Your task to perform on an android device: toggle improve location accuracy Image 0: 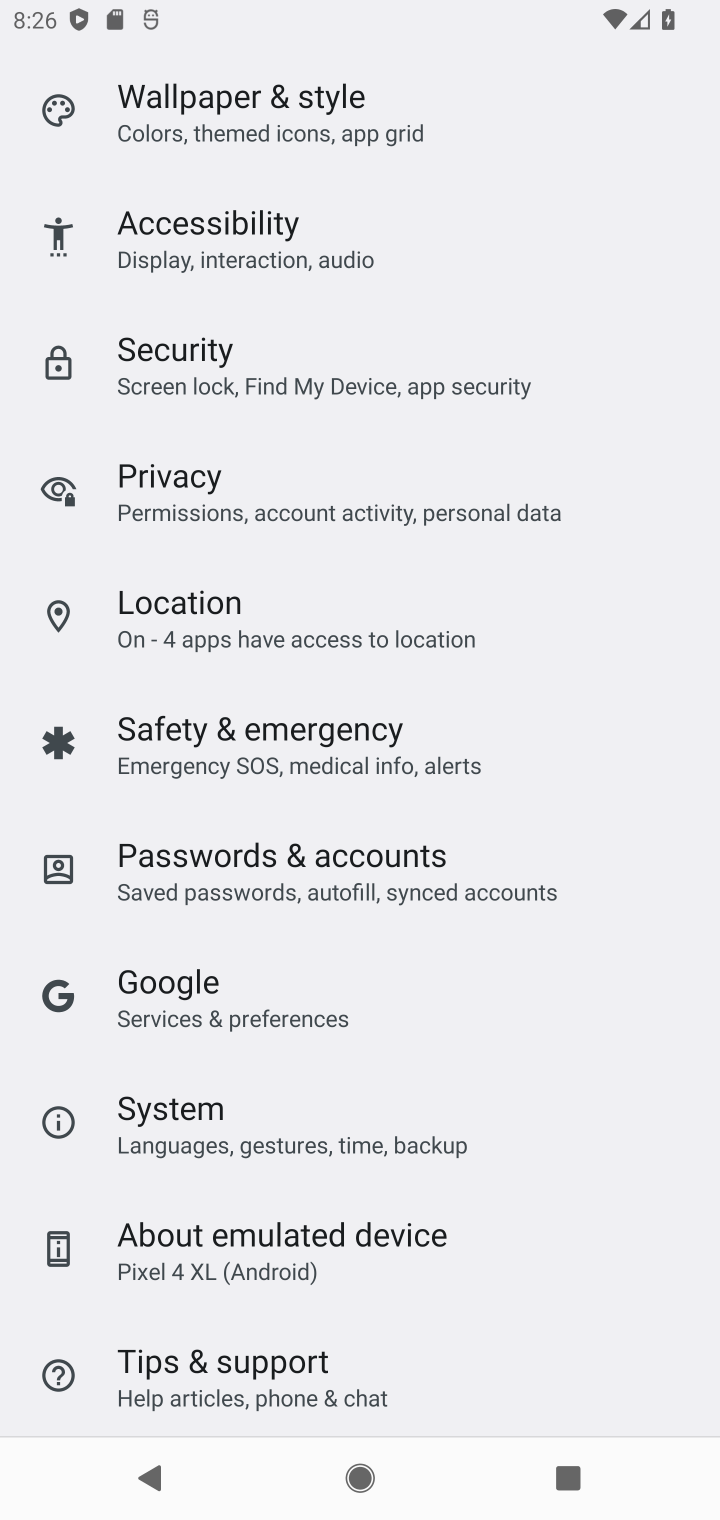
Step 0: drag from (431, 440) to (609, 1331)
Your task to perform on an android device: toggle improve location accuracy Image 1: 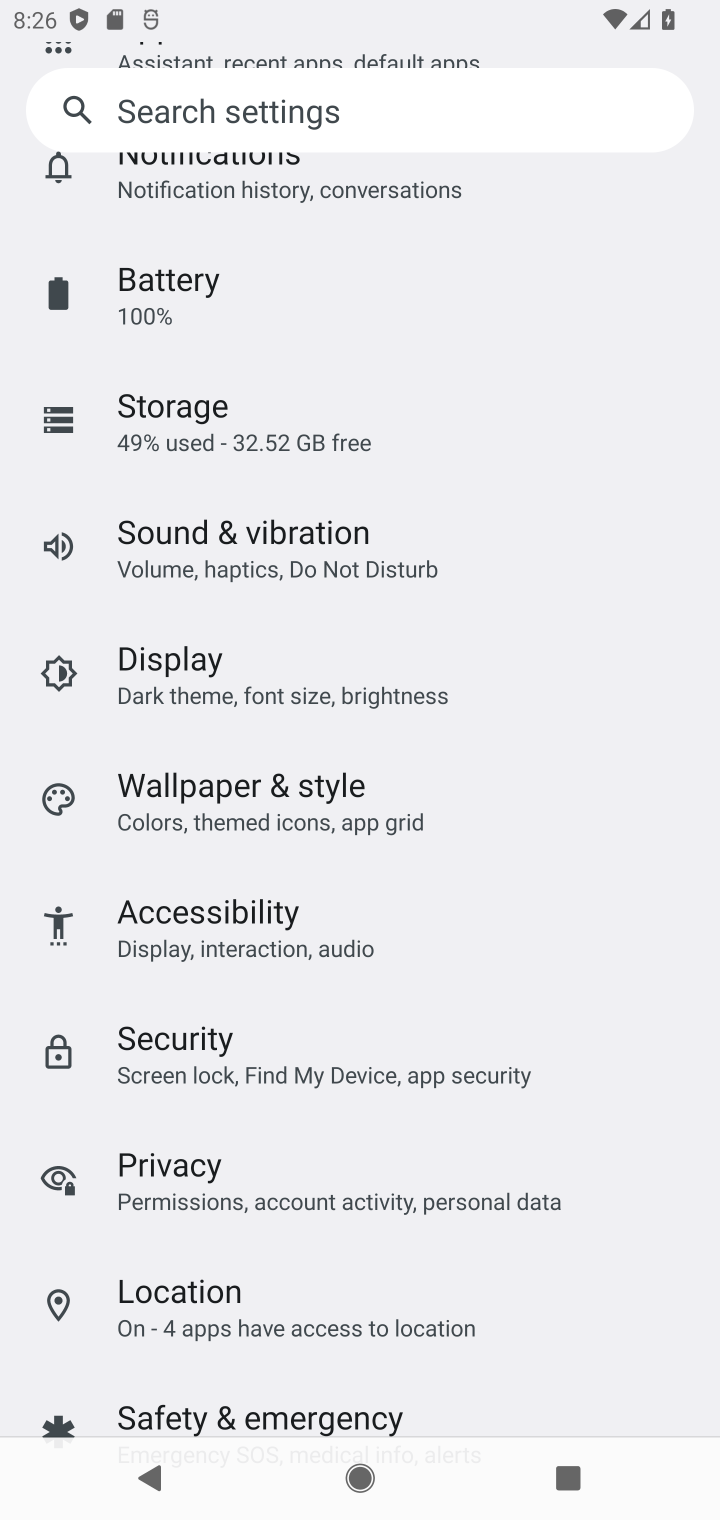
Step 1: click (281, 1284)
Your task to perform on an android device: toggle improve location accuracy Image 2: 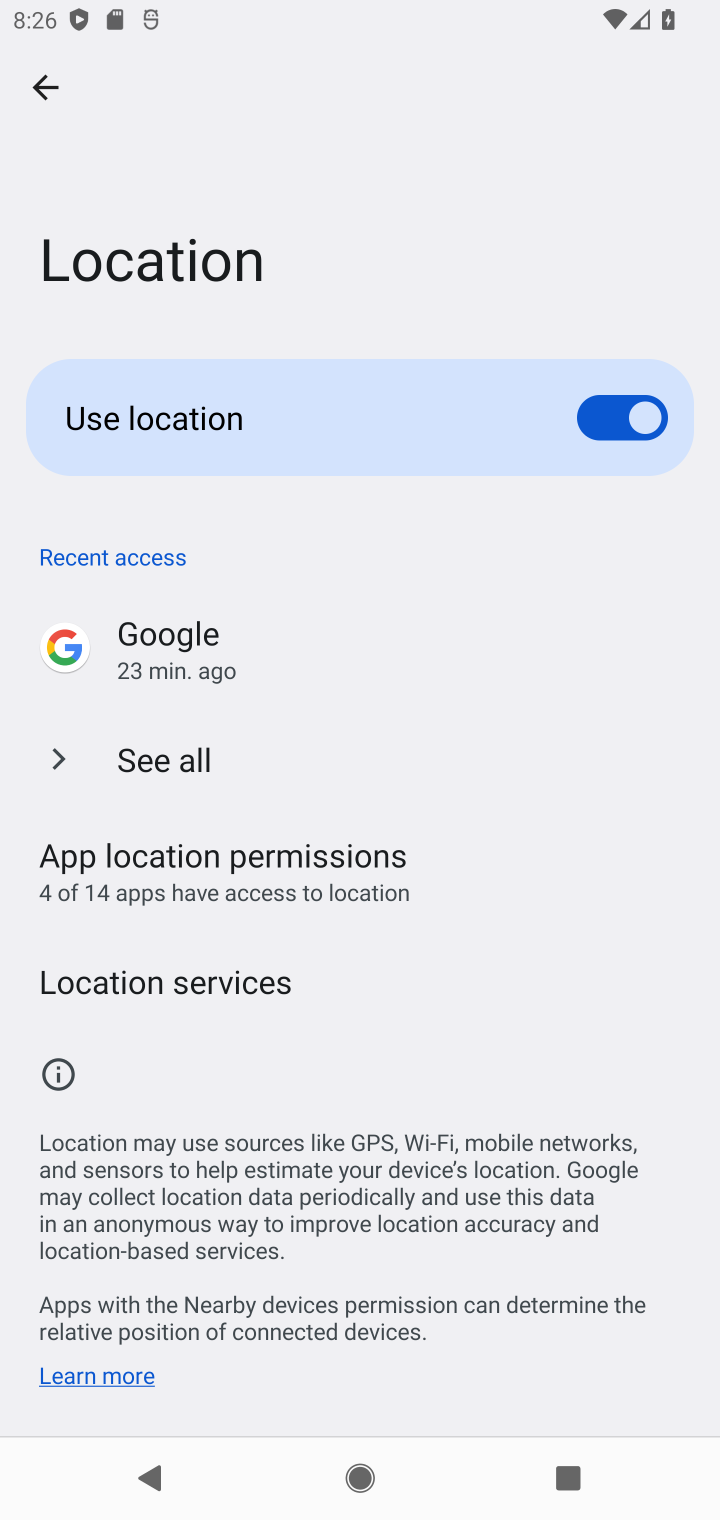
Step 2: drag from (304, 914) to (353, 666)
Your task to perform on an android device: toggle improve location accuracy Image 3: 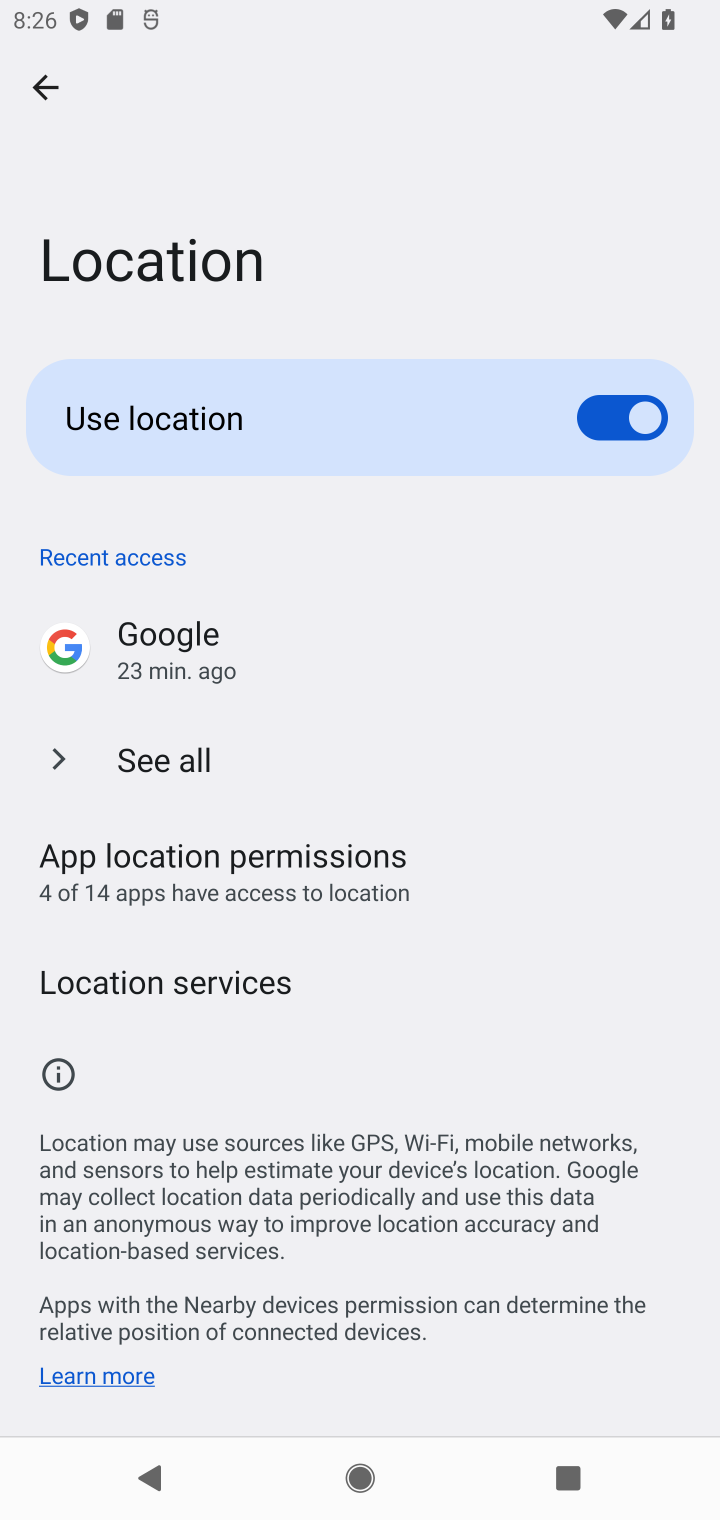
Step 3: click (200, 1000)
Your task to perform on an android device: toggle improve location accuracy Image 4: 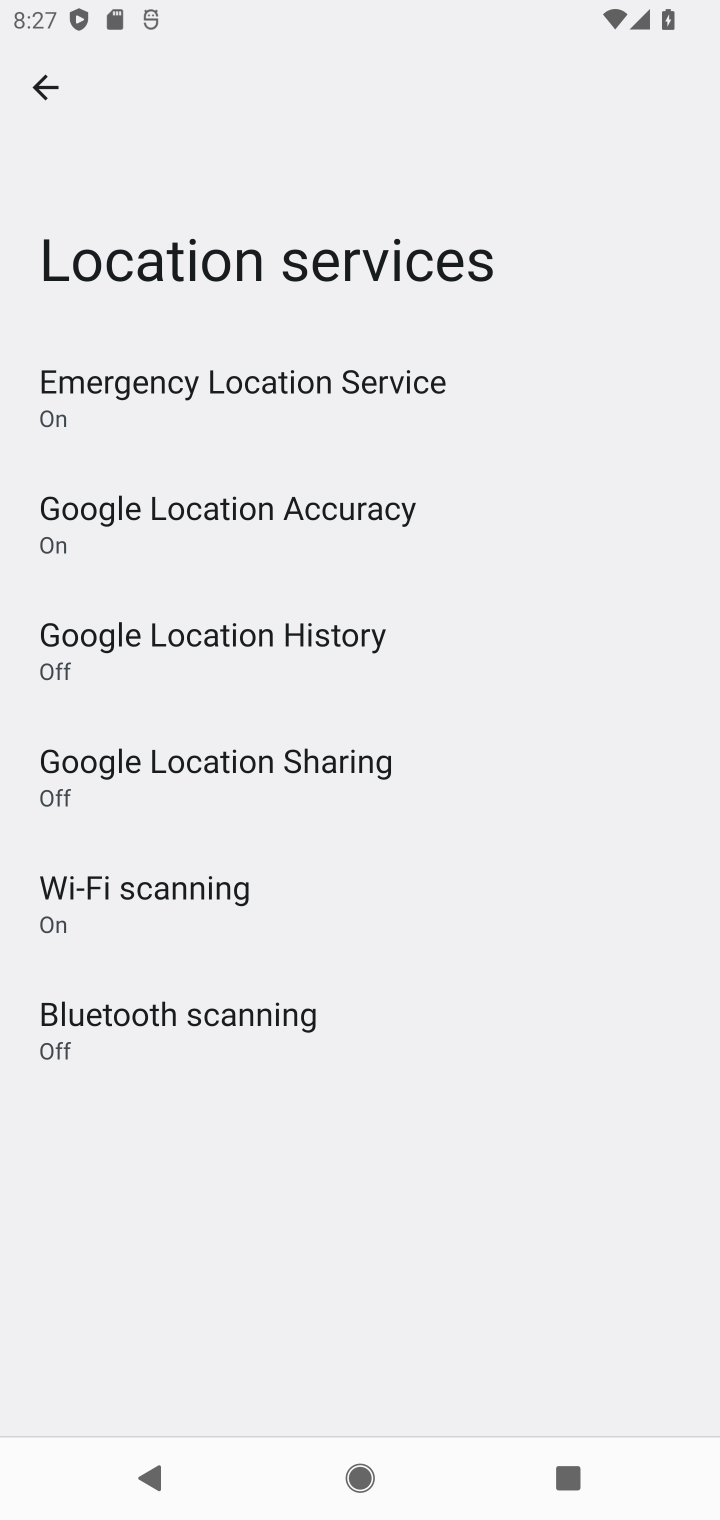
Step 4: click (332, 525)
Your task to perform on an android device: toggle improve location accuracy Image 5: 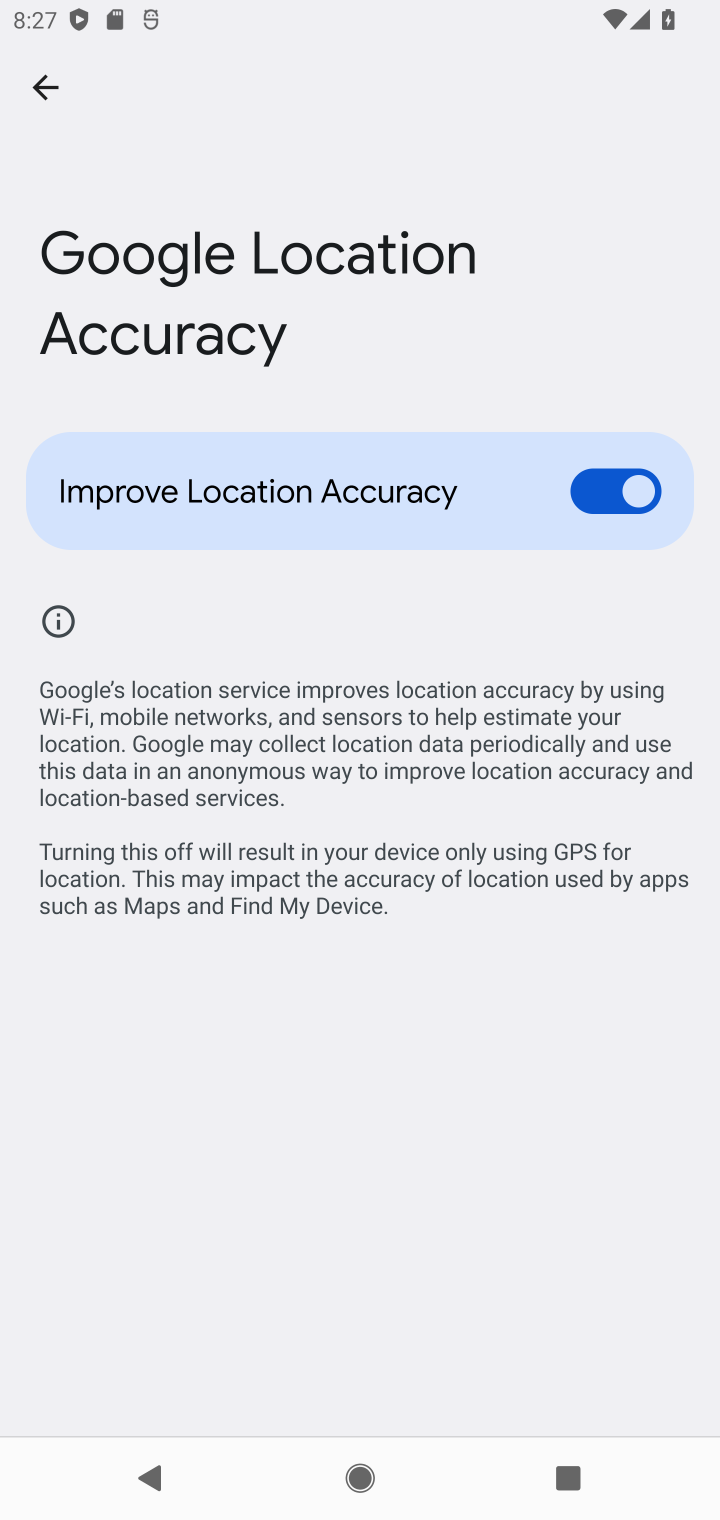
Step 5: drag from (373, 1117) to (384, 606)
Your task to perform on an android device: toggle improve location accuracy Image 6: 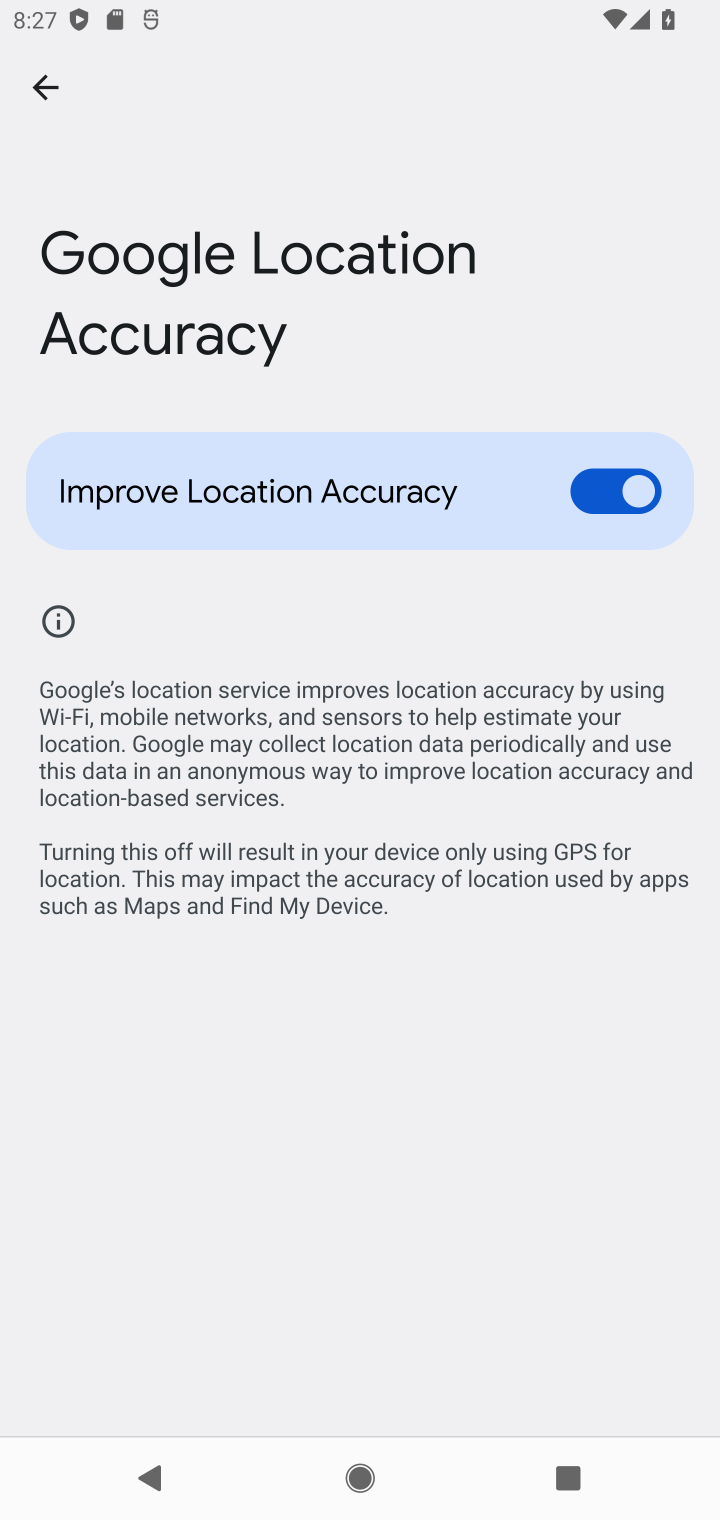
Step 6: drag from (388, 788) to (435, 445)
Your task to perform on an android device: toggle improve location accuracy Image 7: 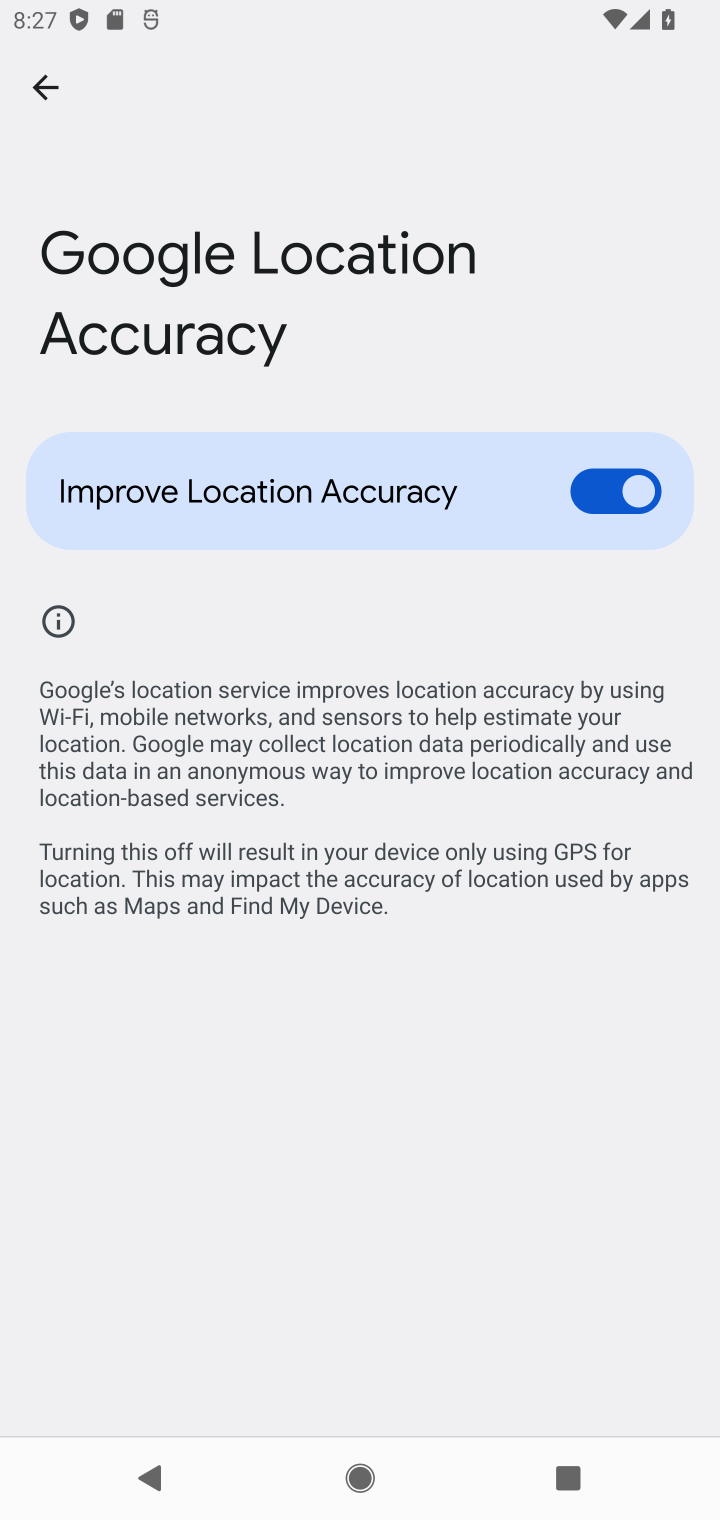
Step 7: click (588, 472)
Your task to perform on an android device: toggle improve location accuracy Image 8: 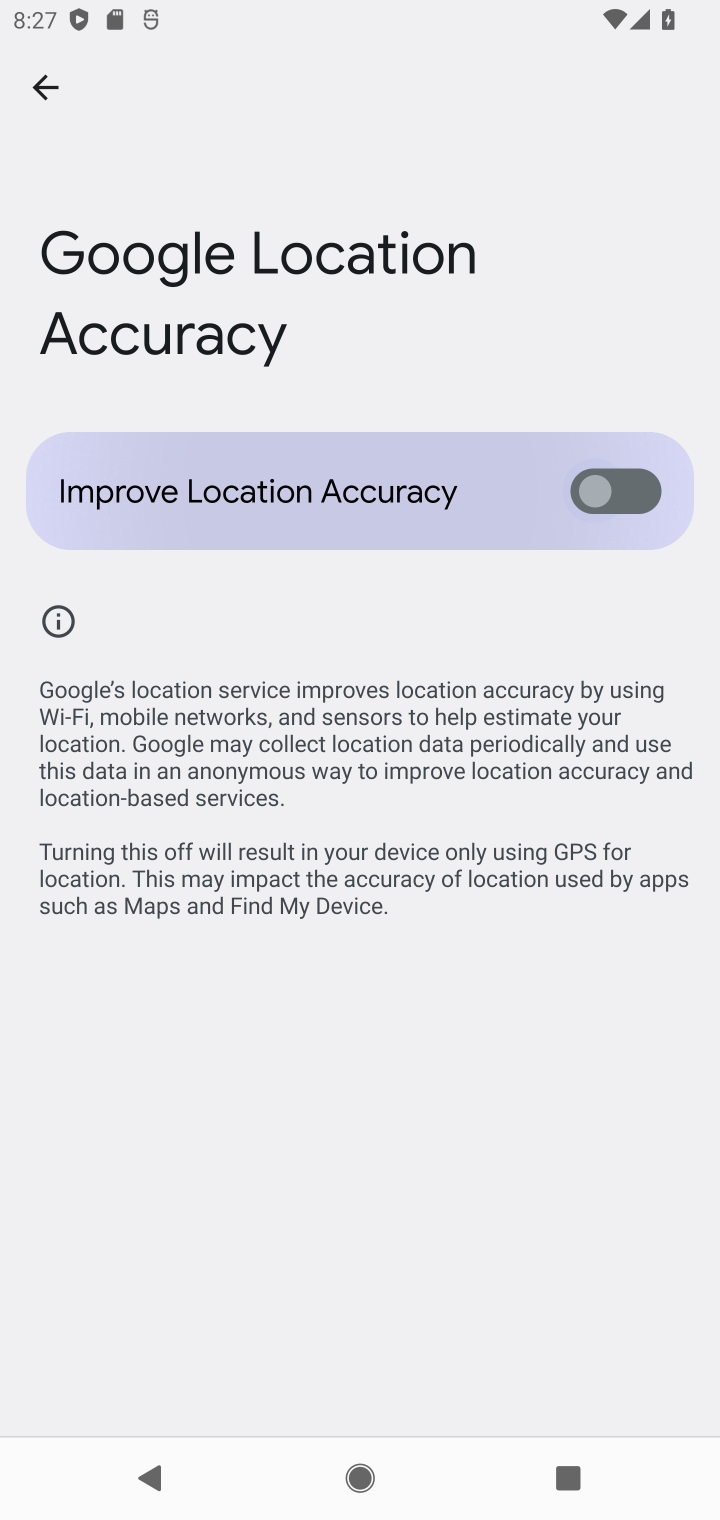
Step 8: task complete